Your task to perform on an android device: Open the map Image 0: 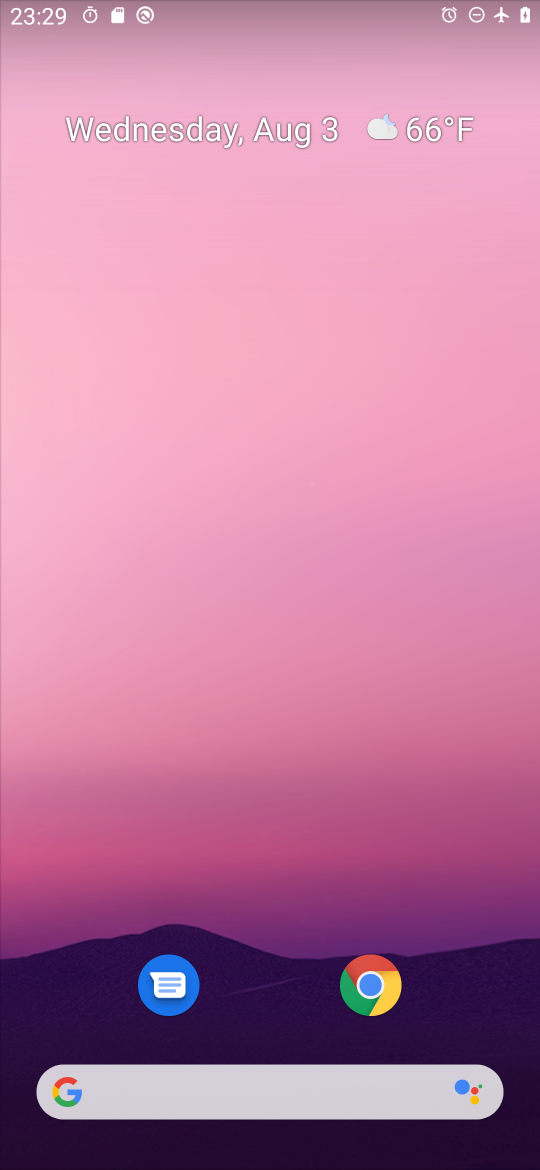
Step 0: click (267, 368)
Your task to perform on an android device: Open the map Image 1: 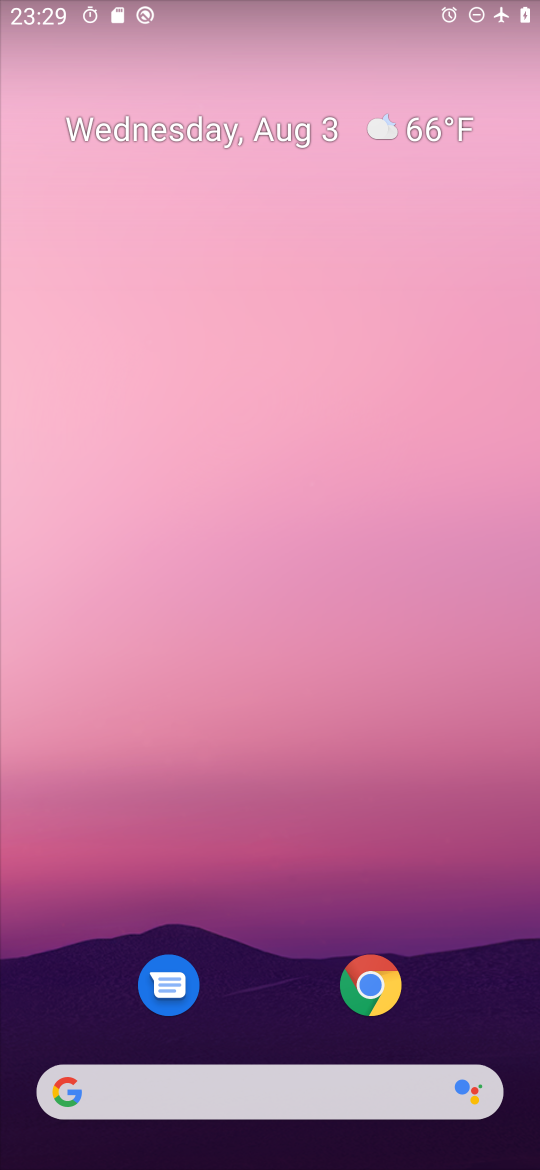
Step 1: drag from (285, 1009) to (283, 419)
Your task to perform on an android device: Open the map Image 2: 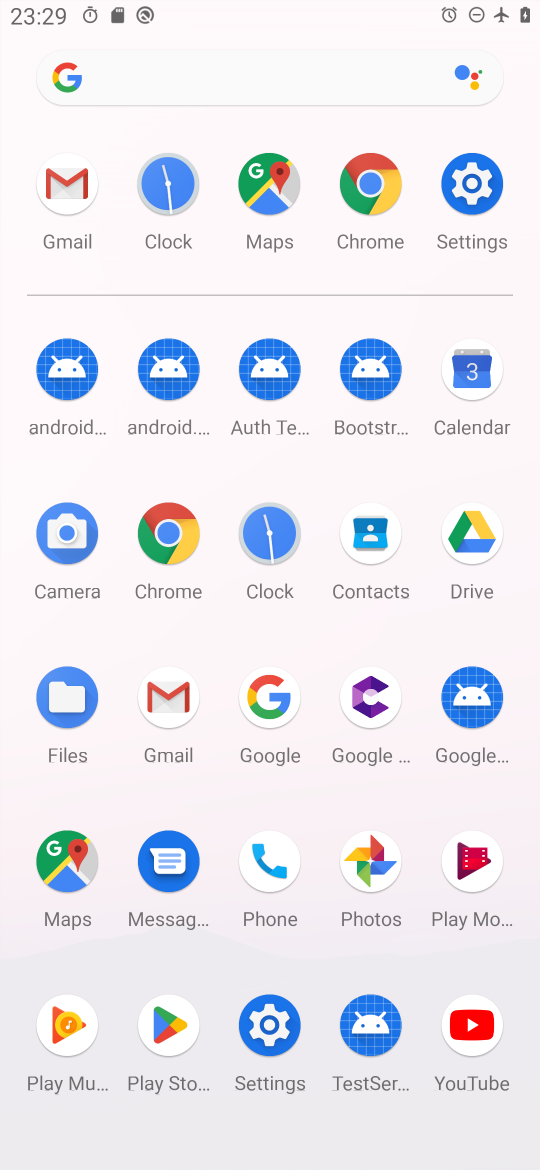
Step 2: click (80, 879)
Your task to perform on an android device: Open the map Image 3: 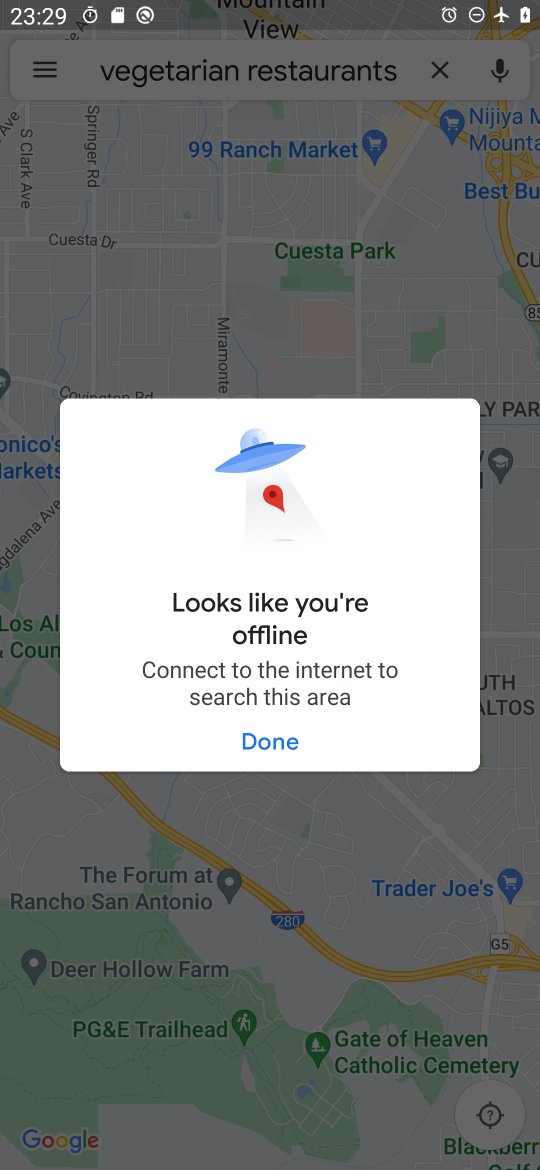
Step 3: task complete